Your task to perform on an android device: Go to location settings Image 0: 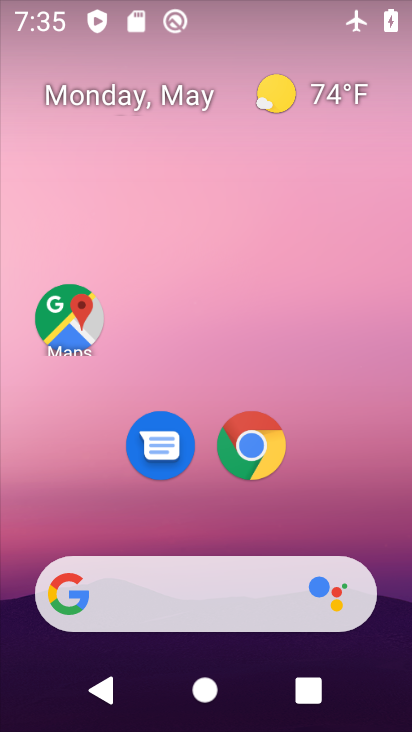
Step 0: drag from (181, 570) to (339, 11)
Your task to perform on an android device: Go to location settings Image 1: 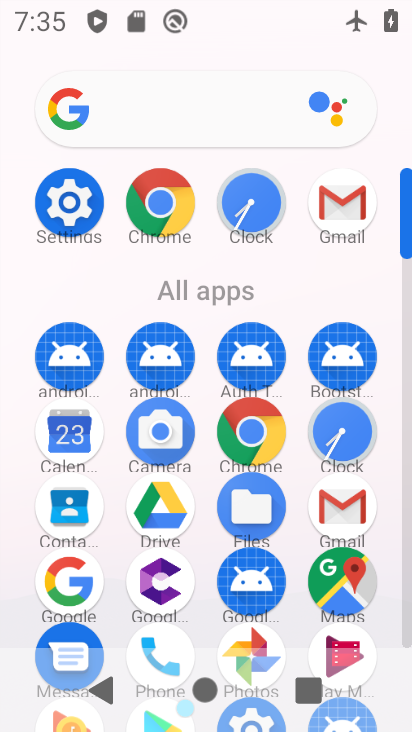
Step 1: click (70, 207)
Your task to perform on an android device: Go to location settings Image 2: 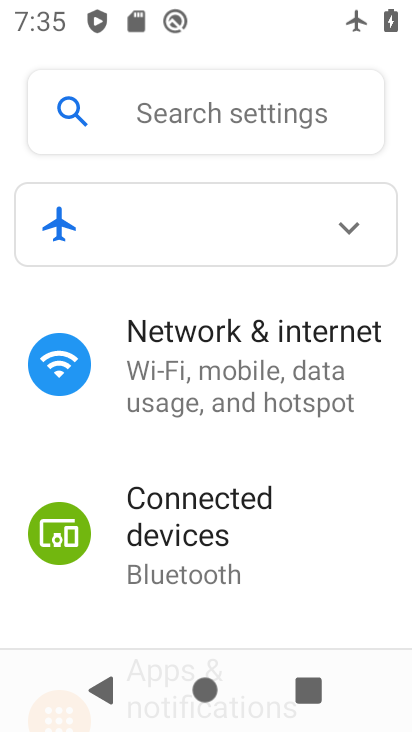
Step 2: drag from (240, 604) to (400, 101)
Your task to perform on an android device: Go to location settings Image 3: 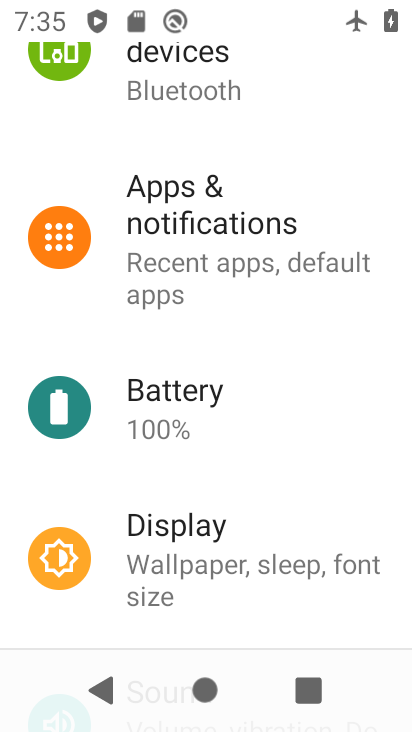
Step 3: drag from (258, 513) to (388, 1)
Your task to perform on an android device: Go to location settings Image 4: 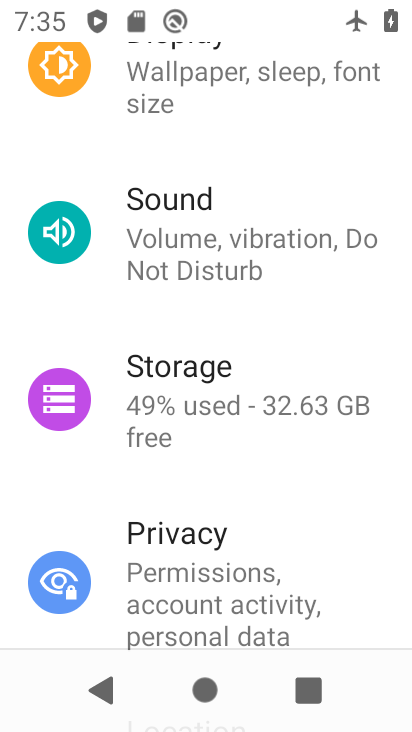
Step 4: drag from (285, 544) to (360, 80)
Your task to perform on an android device: Go to location settings Image 5: 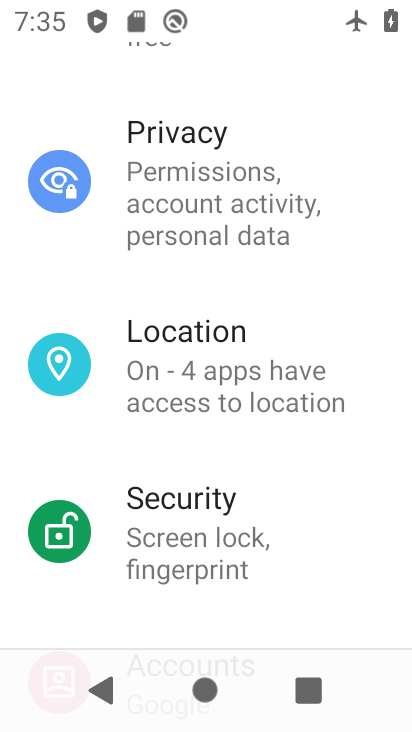
Step 5: click (217, 393)
Your task to perform on an android device: Go to location settings Image 6: 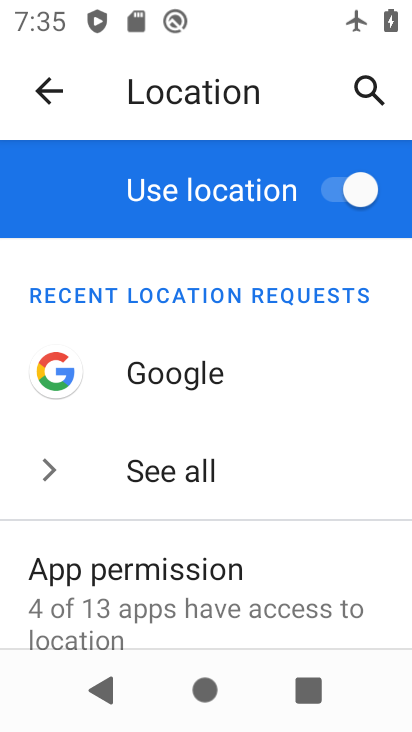
Step 6: task complete